Your task to perform on an android device: turn pop-ups off in chrome Image 0: 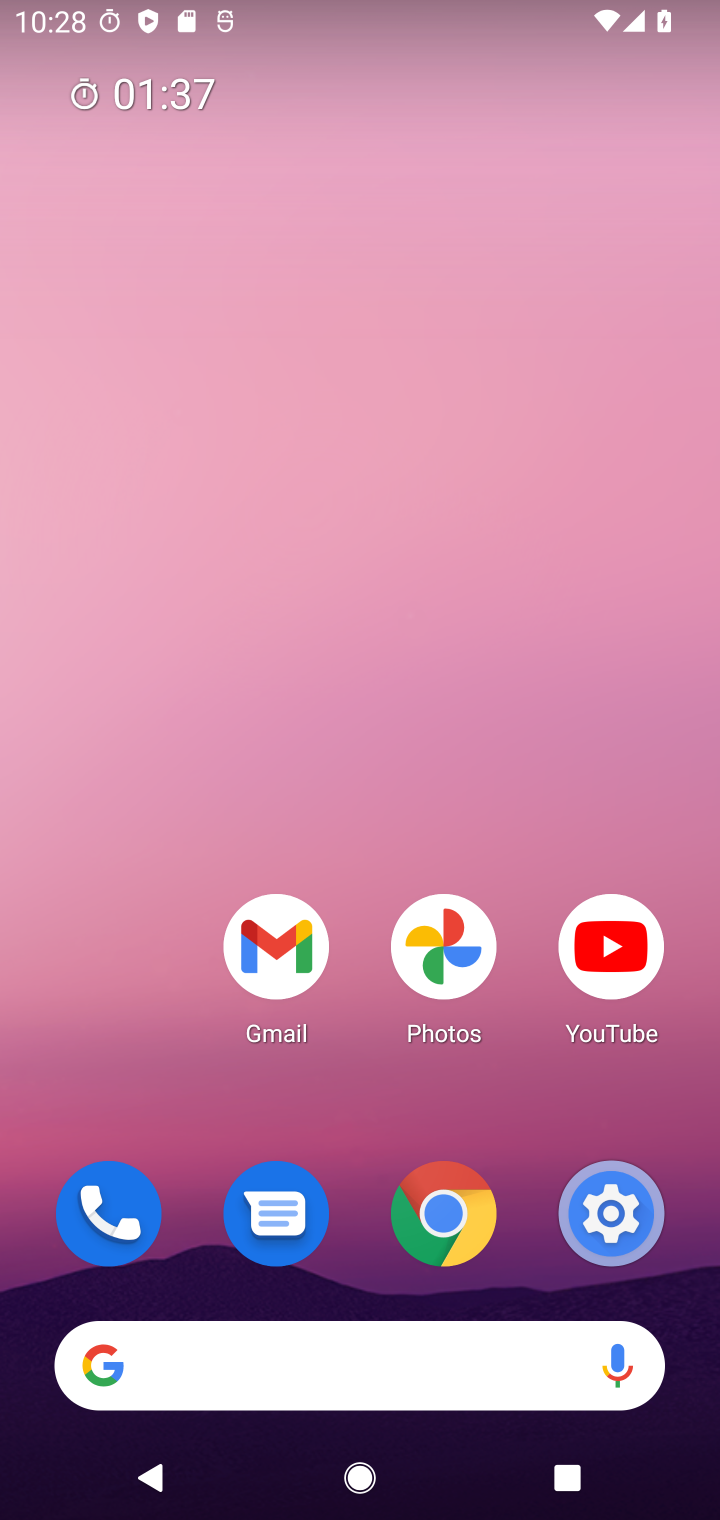
Step 0: drag from (397, 1131) to (393, 312)
Your task to perform on an android device: turn pop-ups off in chrome Image 1: 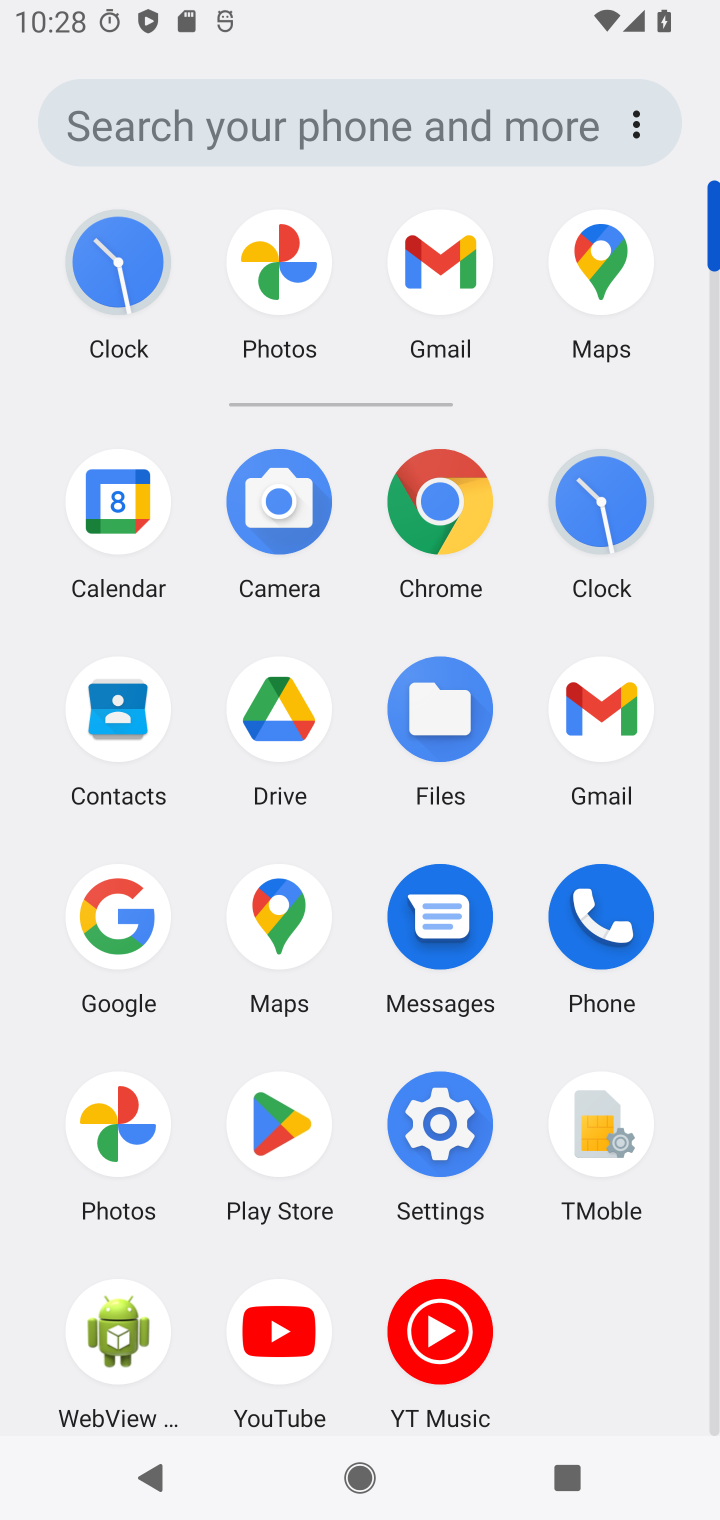
Step 1: click (475, 523)
Your task to perform on an android device: turn pop-ups off in chrome Image 2: 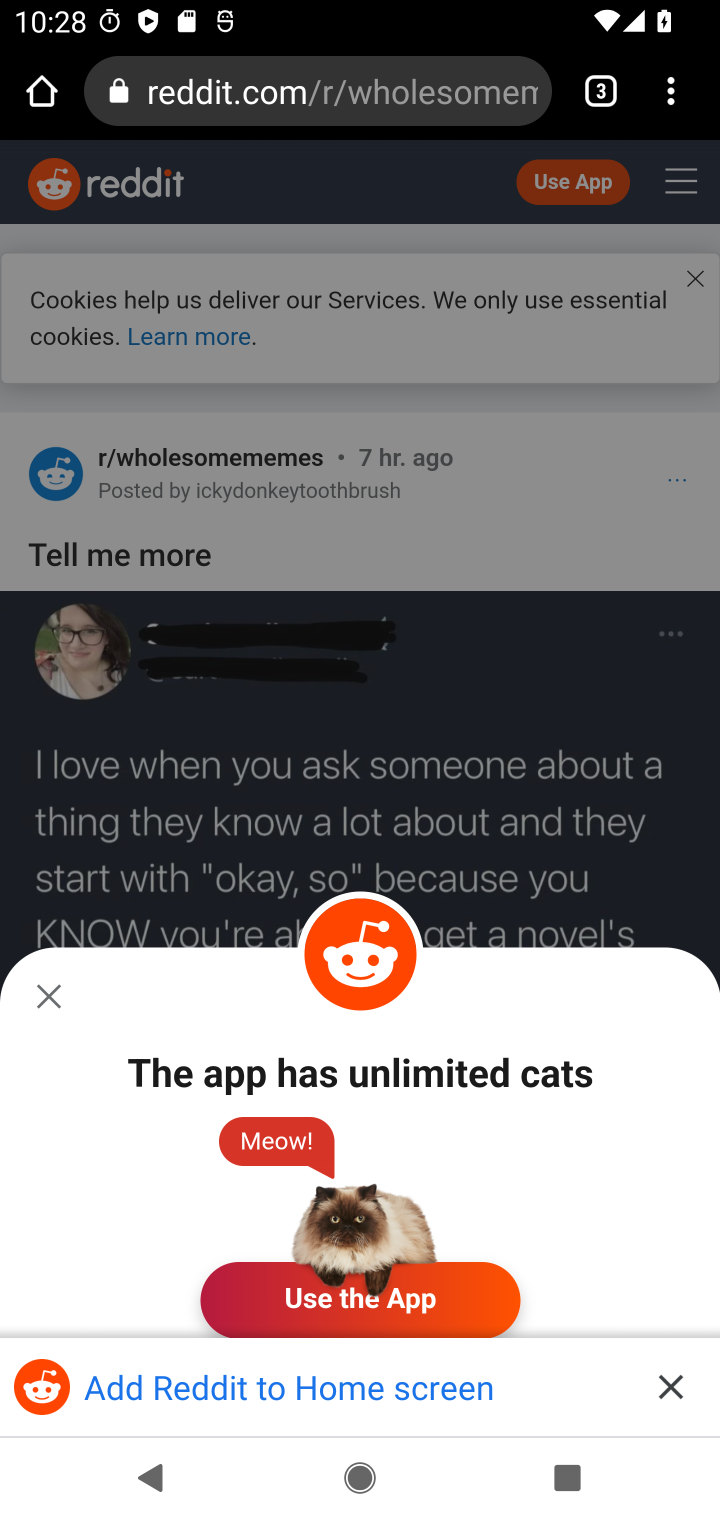
Step 2: click (679, 1386)
Your task to perform on an android device: turn pop-ups off in chrome Image 3: 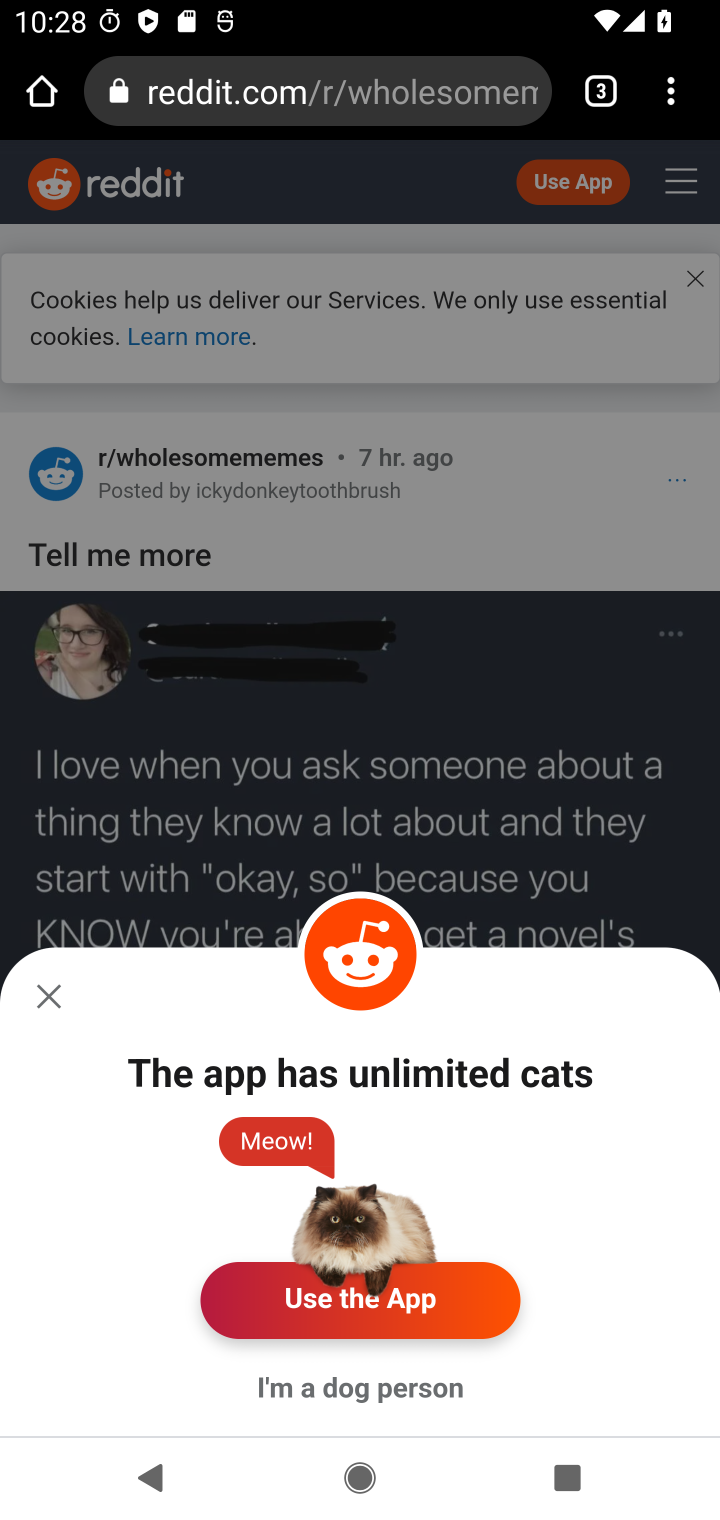
Step 3: click (676, 101)
Your task to perform on an android device: turn pop-ups off in chrome Image 4: 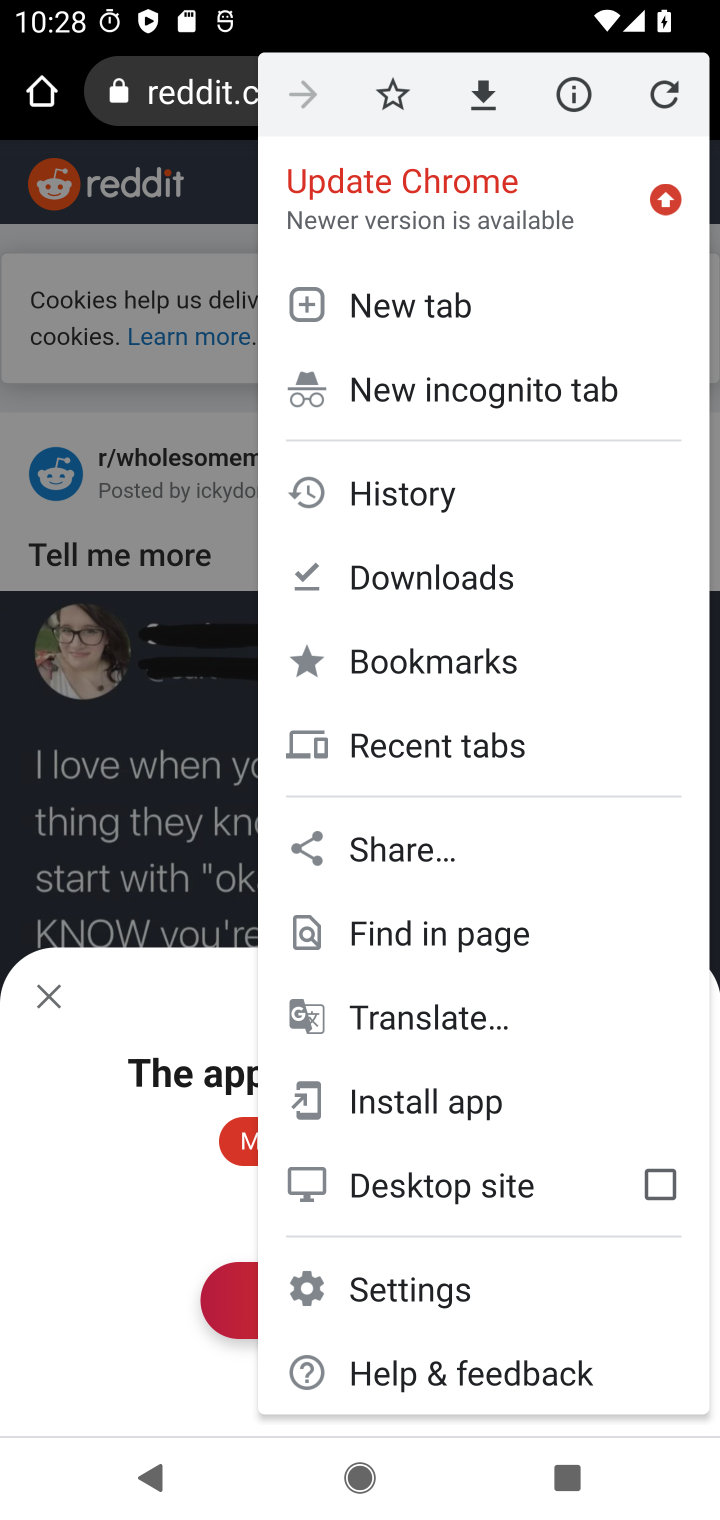
Step 4: click (455, 1298)
Your task to perform on an android device: turn pop-ups off in chrome Image 5: 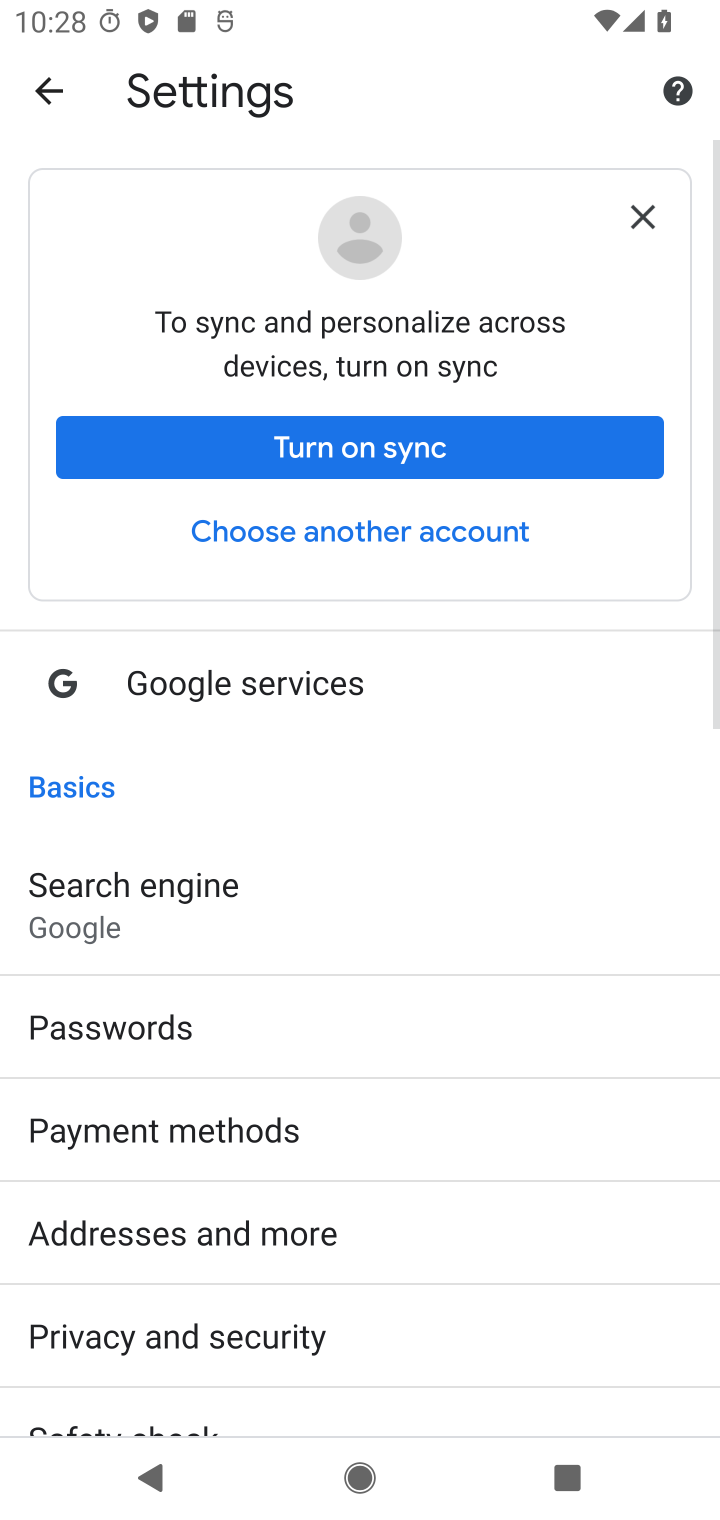
Step 5: drag from (378, 1273) to (463, 389)
Your task to perform on an android device: turn pop-ups off in chrome Image 6: 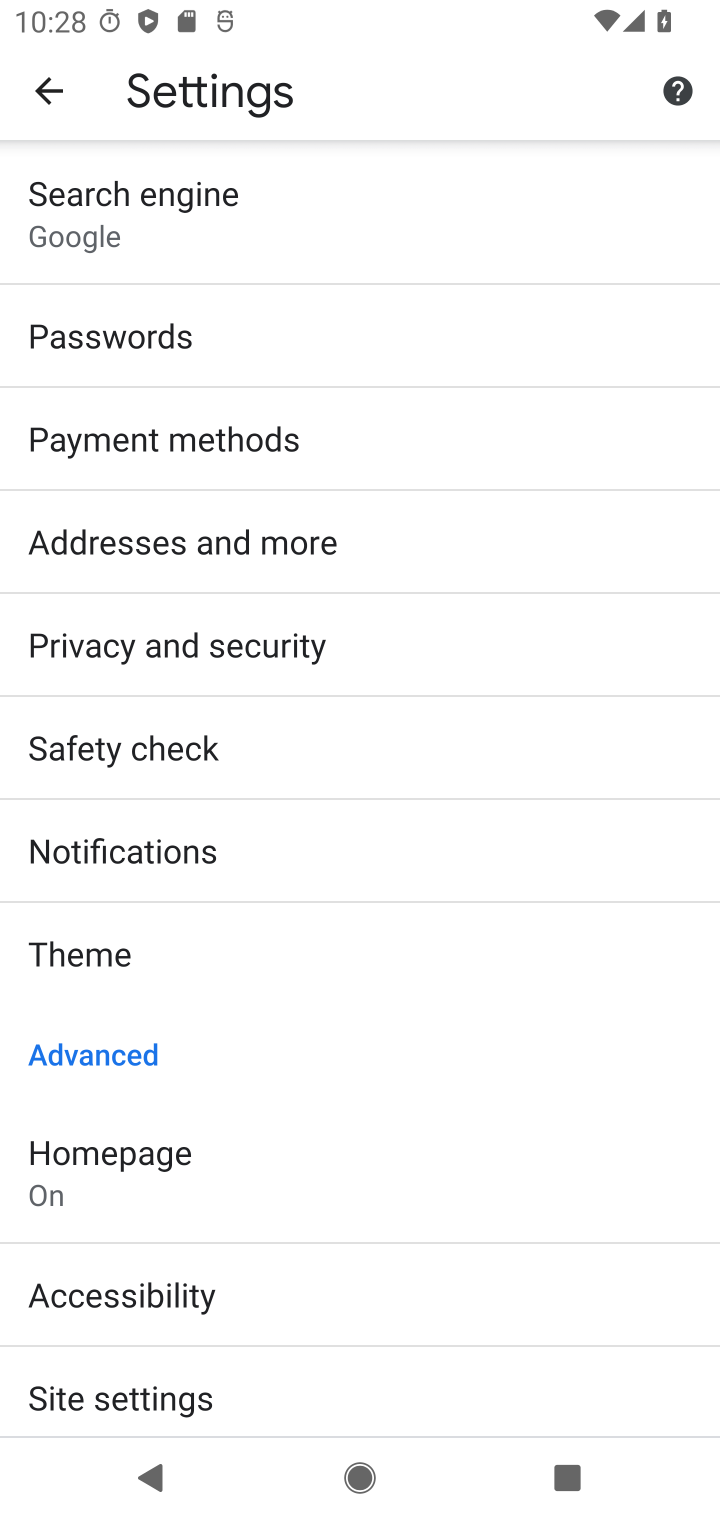
Step 6: drag from (307, 1047) to (354, 437)
Your task to perform on an android device: turn pop-ups off in chrome Image 7: 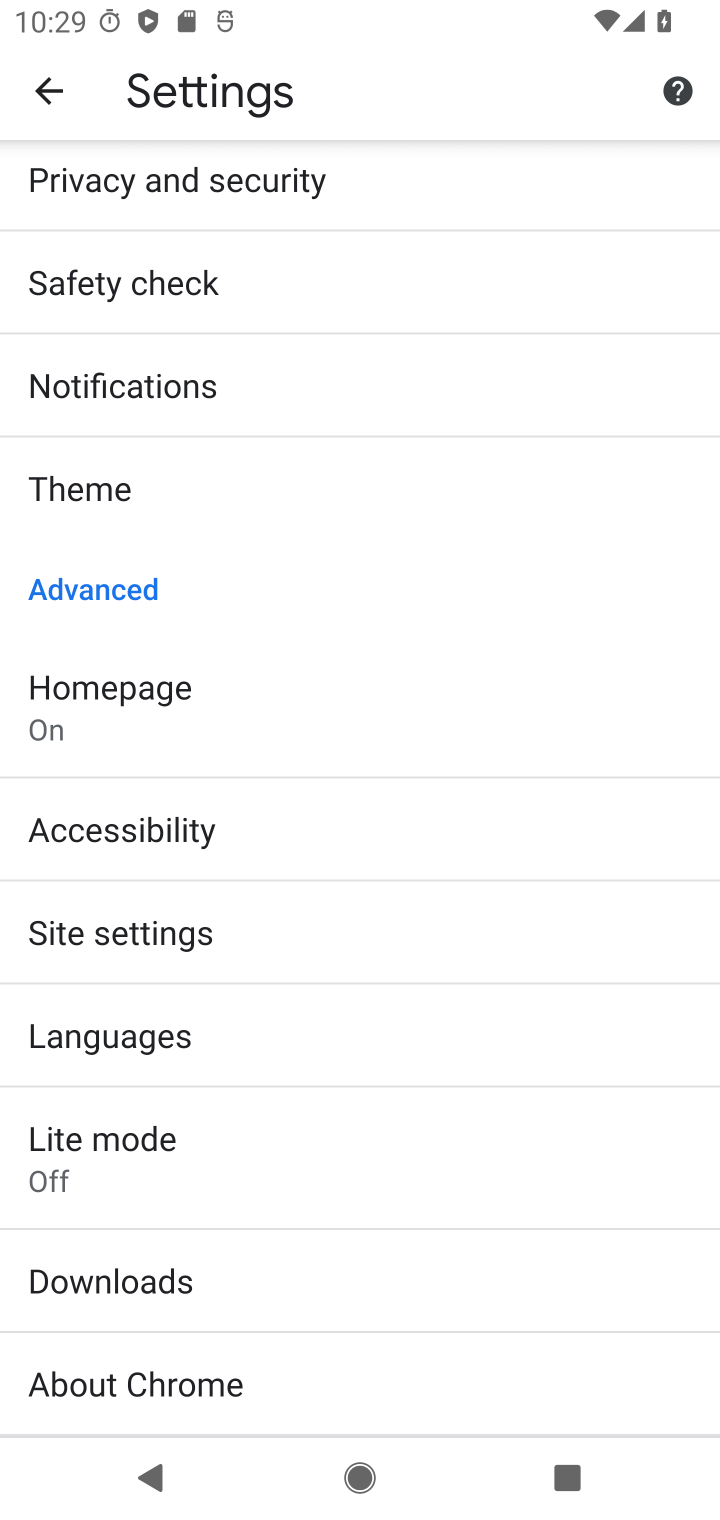
Step 7: click (201, 946)
Your task to perform on an android device: turn pop-ups off in chrome Image 8: 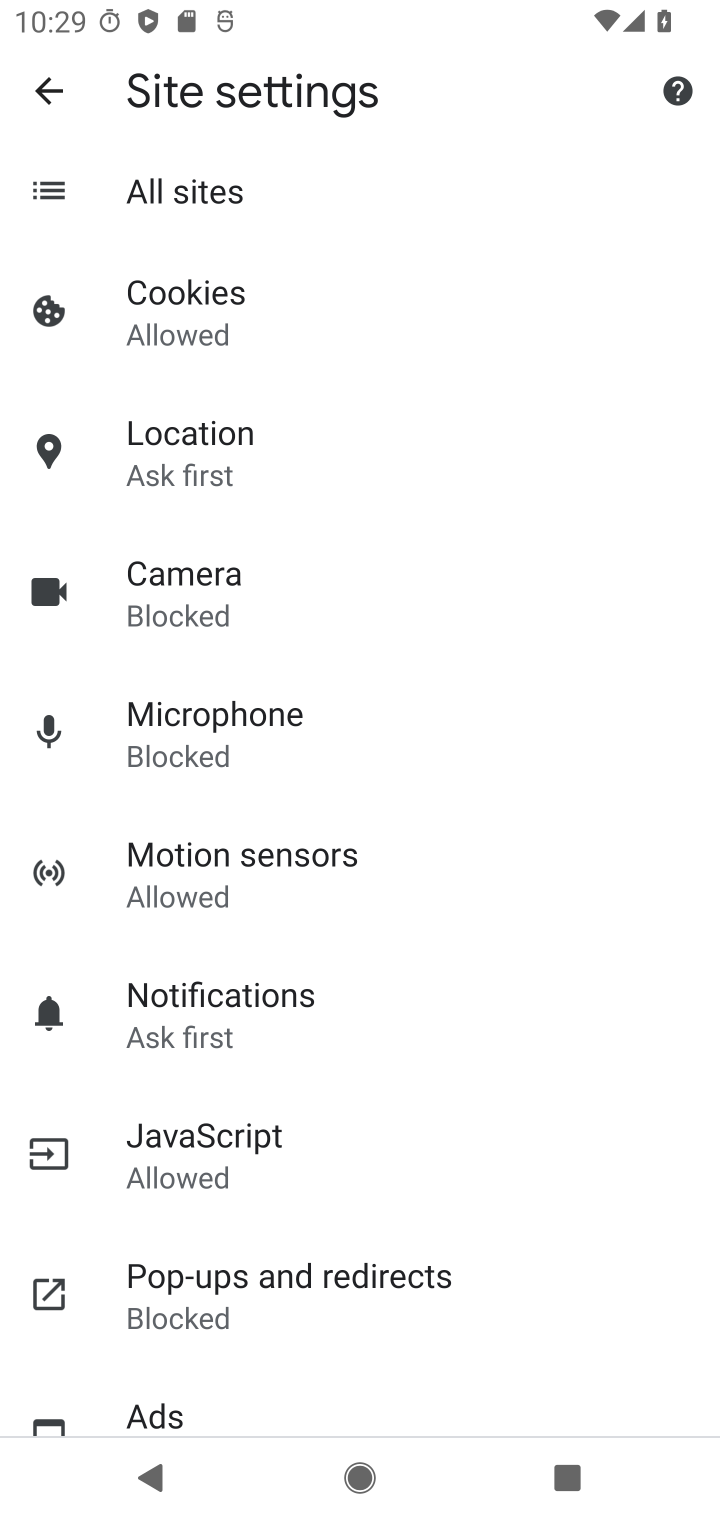
Step 8: click (338, 1274)
Your task to perform on an android device: turn pop-ups off in chrome Image 9: 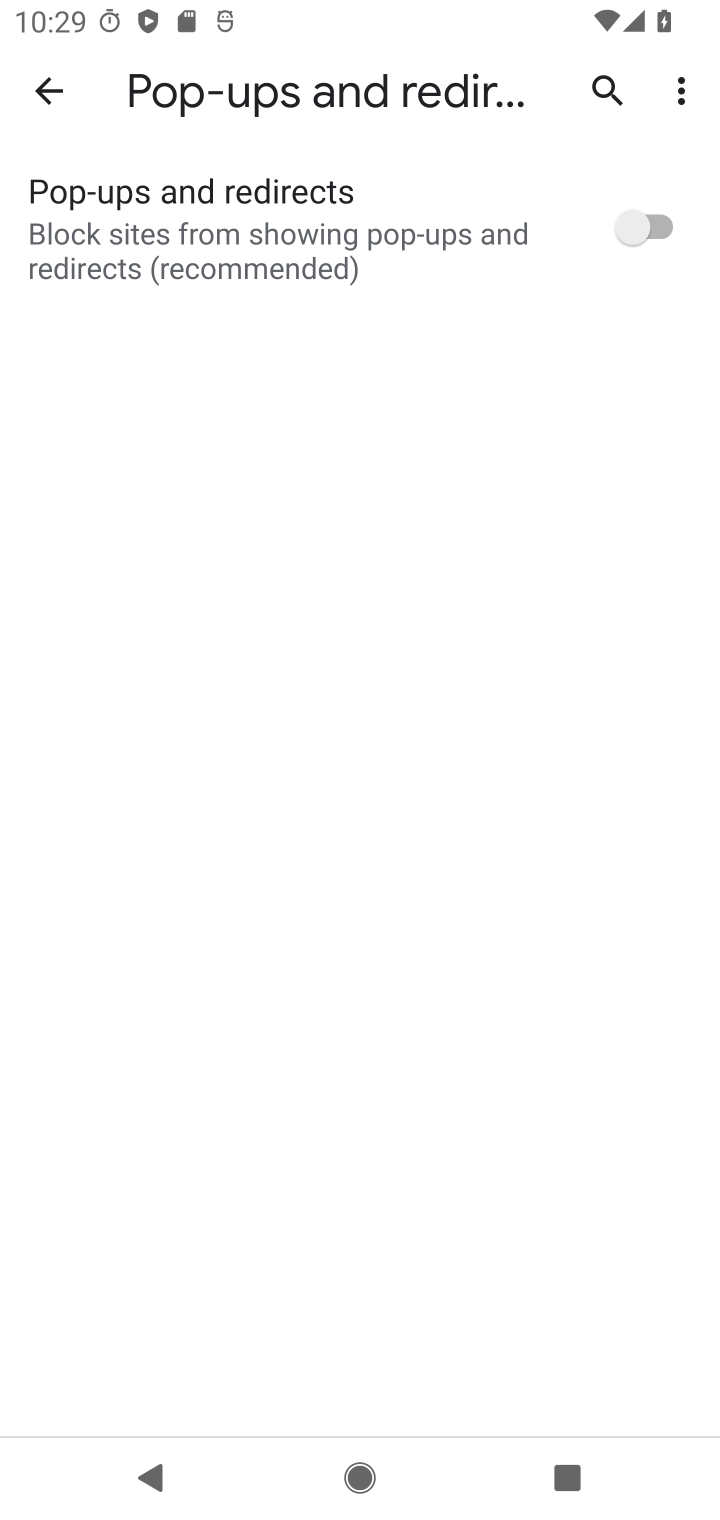
Step 9: task complete